Your task to perform on an android device: Open the stopwatch Image 0: 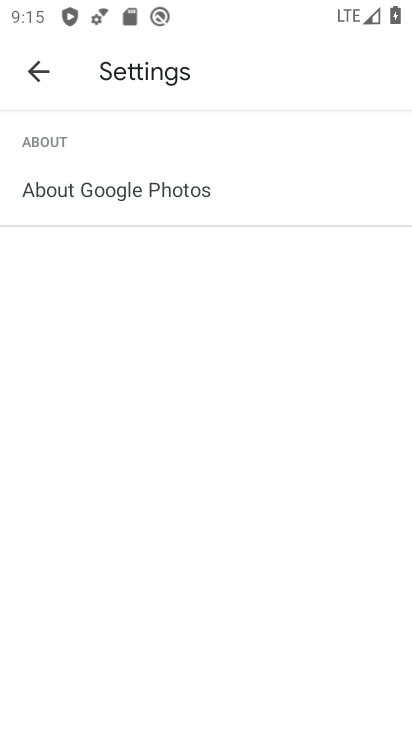
Step 0: press back button
Your task to perform on an android device: Open the stopwatch Image 1: 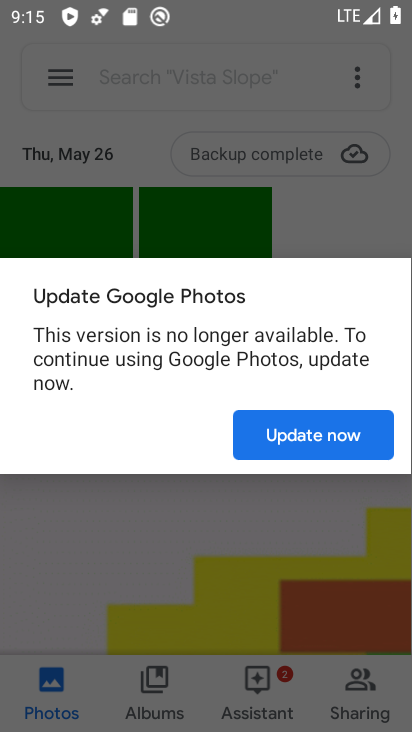
Step 1: press home button
Your task to perform on an android device: Open the stopwatch Image 2: 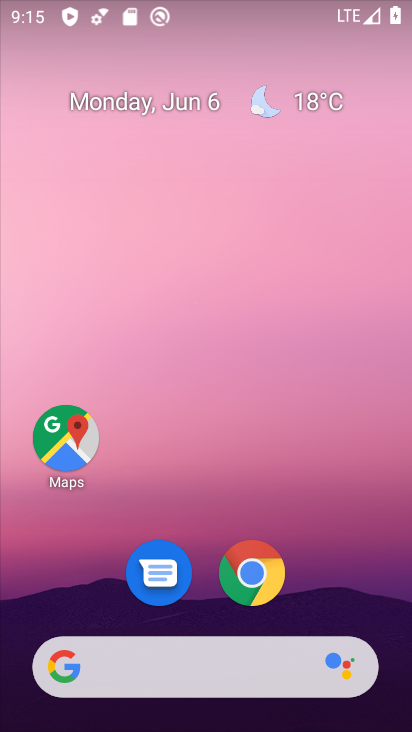
Step 2: drag from (71, 574) to (191, 57)
Your task to perform on an android device: Open the stopwatch Image 3: 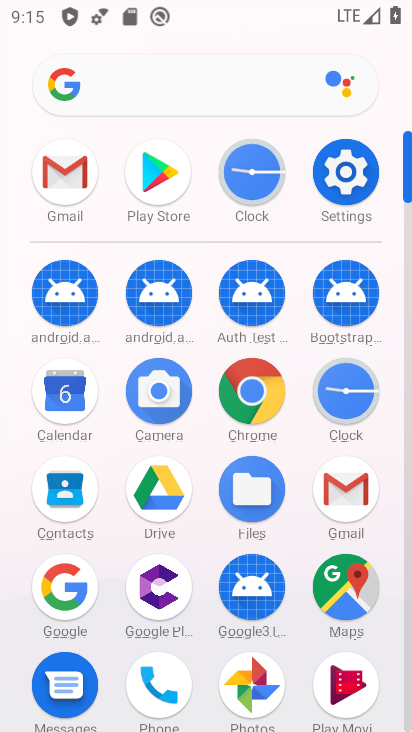
Step 3: click (350, 409)
Your task to perform on an android device: Open the stopwatch Image 4: 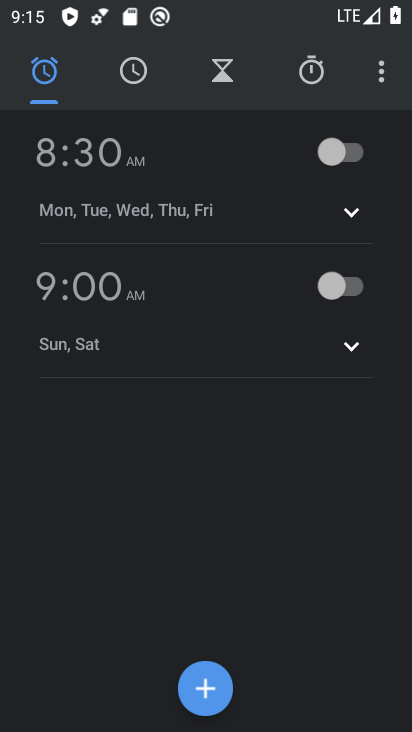
Step 4: click (309, 74)
Your task to perform on an android device: Open the stopwatch Image 5: 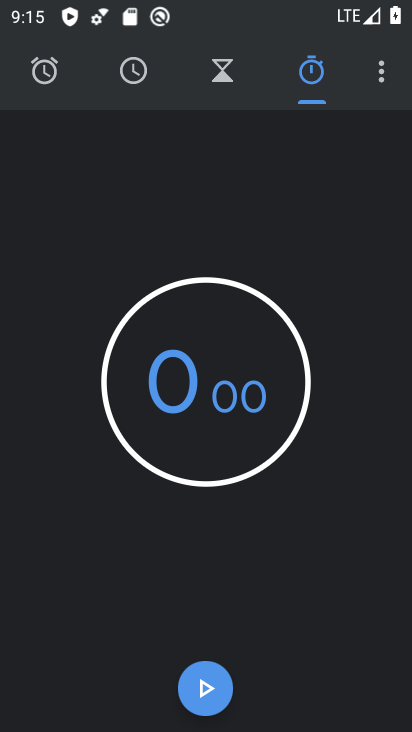
Step 5: task complete